Your task to perform on an android device: Play the last video I watched on Youtube Image 0: 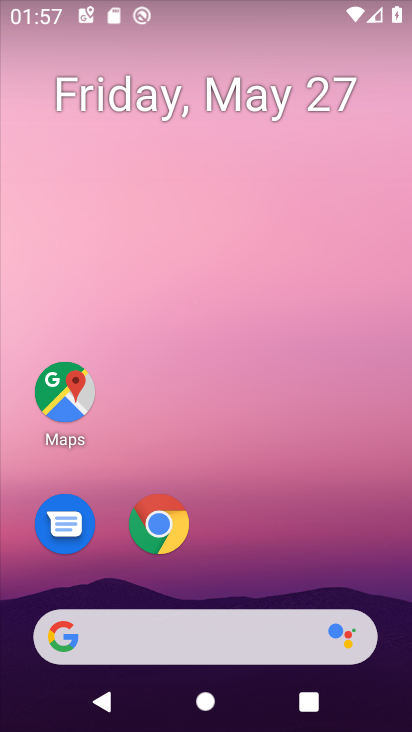
Step 0: drag from (251, 535) to (251, 0)
Your task to perform on an android device: Play the last video I watched on Youtube Image 1: 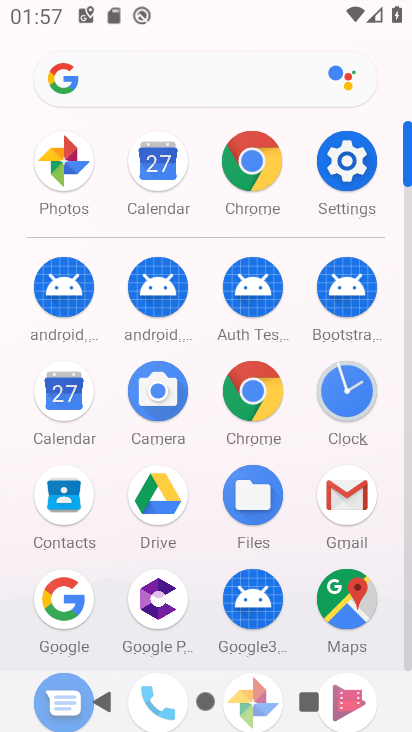
Step 1: drag from (206, 469) to (222, 146)
Your task to perform on an android device: Play the last video I watched on Youtube Image 2: 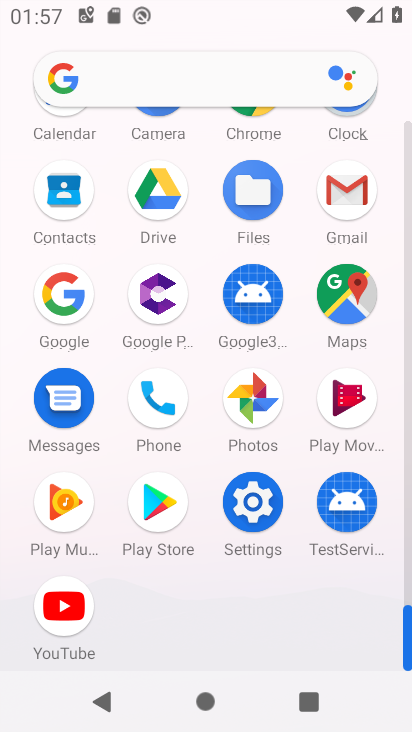
Step 2: click (69, 600)
Your task to perform on an android device: Play the last video I watched on Youtube Image 3: 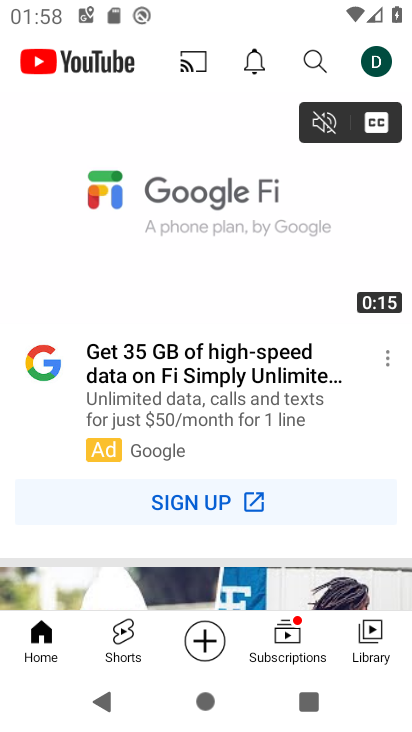
Step 3: click (369, 637)
Your task to perform on an android device: Play the last video I watched on Youtube Image 4: 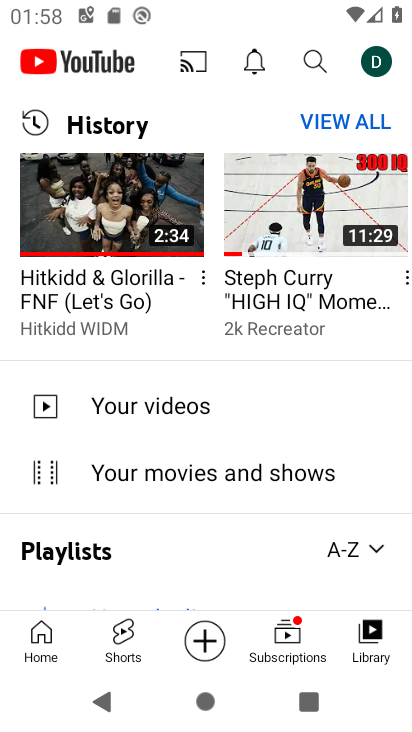
Step 4: click (103, 114)
Your task to perform on an android device: Play the last video I watched on Youtube Image 5: 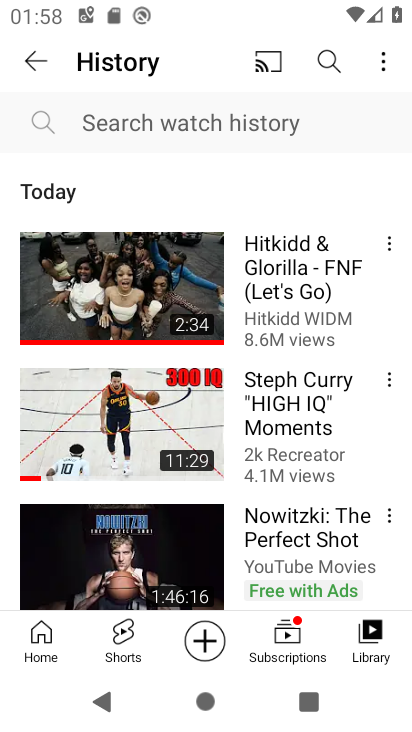
Step 5: click (145, 273)
Your task to perform on an android device: Play the last video I watched on Youtube Image 6: 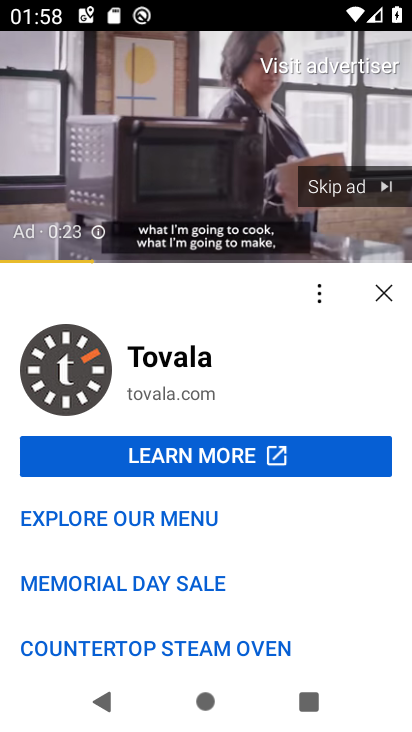
Step 6: click (351, 183)
Your task to perform on an android device: Play the last video I watched on Youtube Image 7: 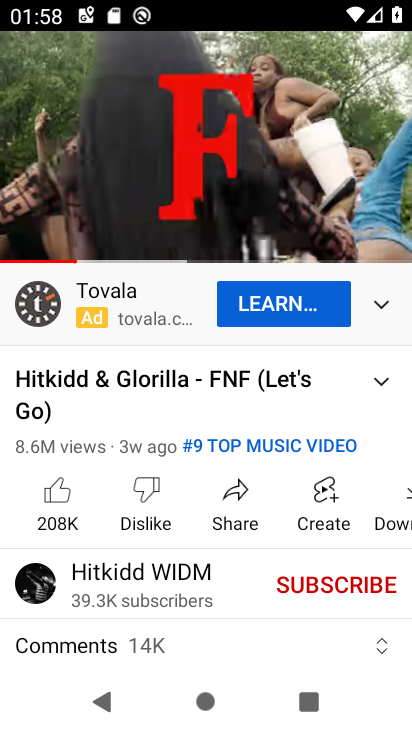
Step 7: task complete